Your task to perform on an android device: open chrome privacy settings Image 0: 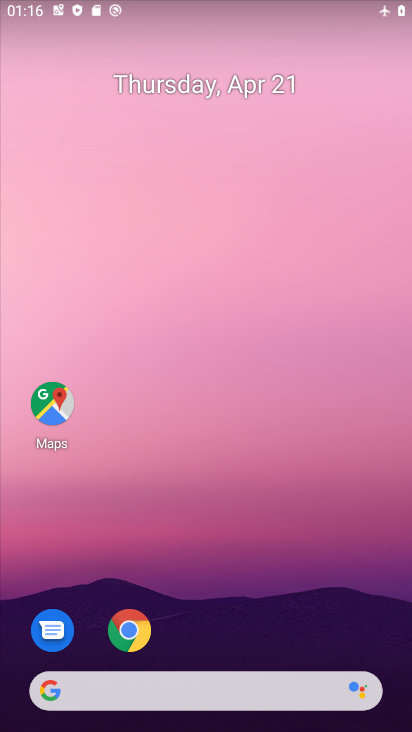
Step 0: click (115, 631)
Your task to perform on an android device: open chrome privacy settings Image 1: 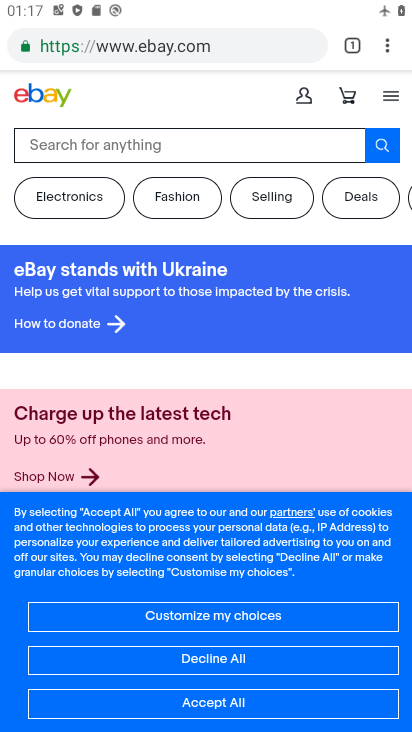
Step 1: click (388, 53)
Your task to perform on an android device: open chrome privacy settings Image 2: 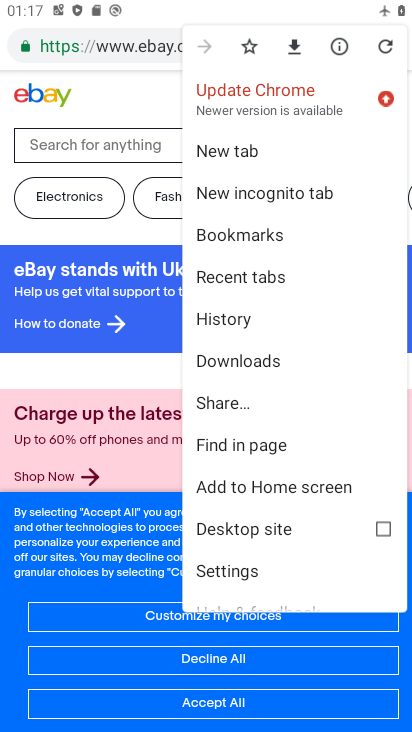
Step 2: click (251, 564)
Your task to perform on an android device: open chrome privacy settings Image 3: 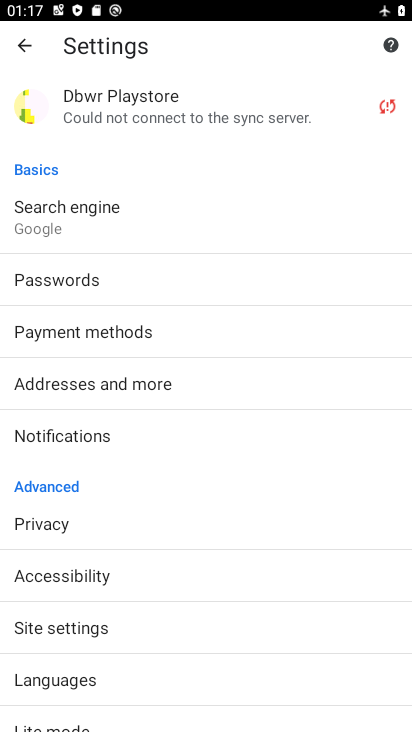
Step 3: click (169, 516)
Your task to perform on an android device: open chrome privacy settings Image 4: 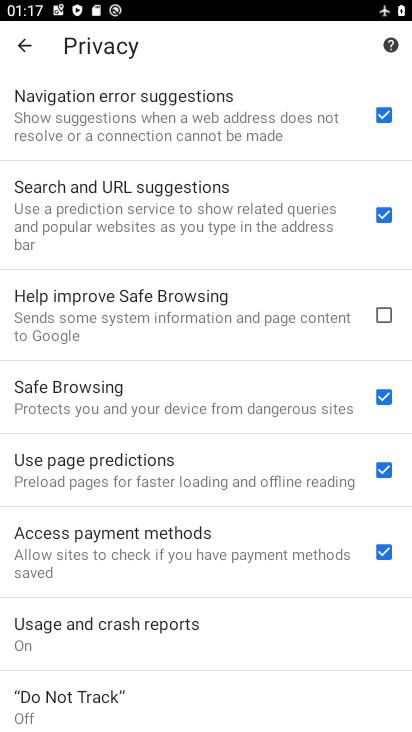
Step 4: task complete